Your task to perform on an android device: What is the news today? Image 0: 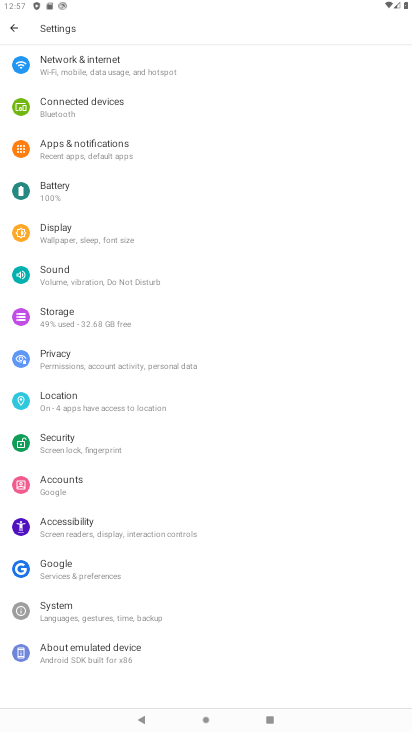
Step 0: press home button
Your task to perform on an android device: What is the news today? Image 1: 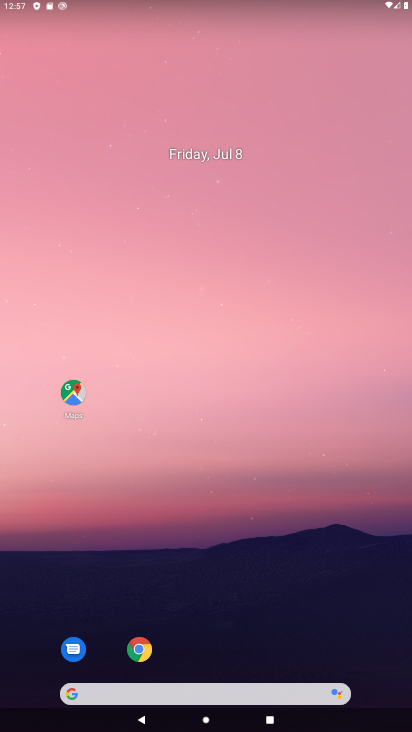
Step 1: click (105, 694)
Your task to perform on an android device: What is the news today? Image 2: 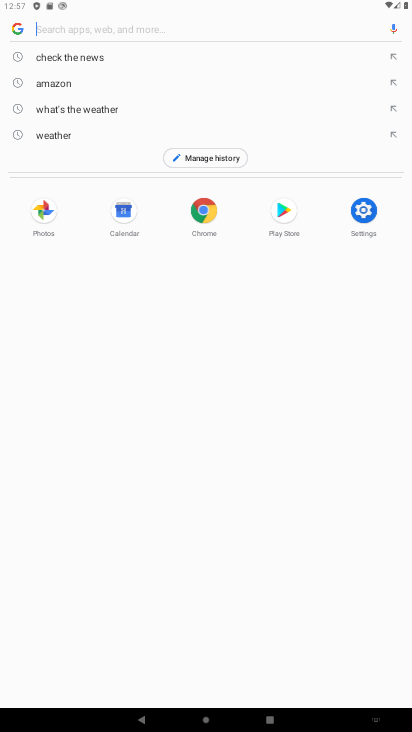
Step 2: type "What is the news today?"
Your task to perform on an android device: What is the news today? Image 3: 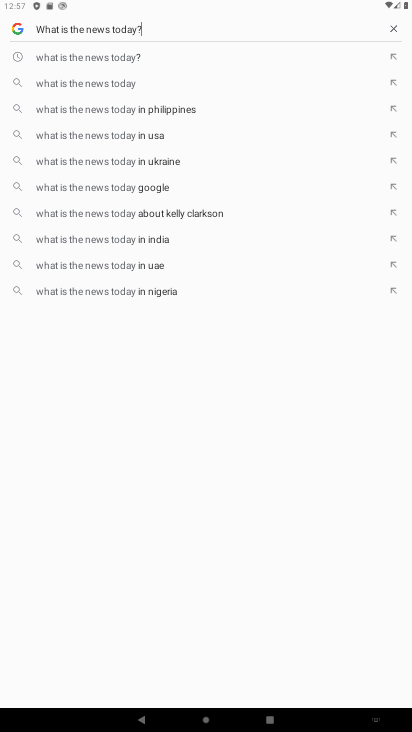
Step 3: type ""
Your task to perform on an android device: What is the news today? Image 4: 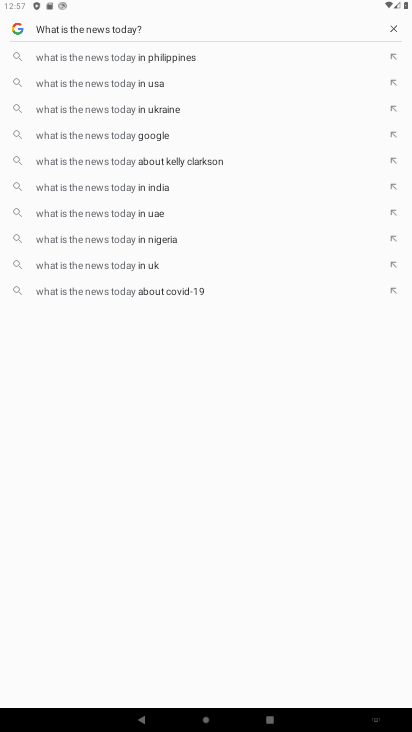
Step 4: type ""
Your task to perform on an android device: What is the news today? Image 5: 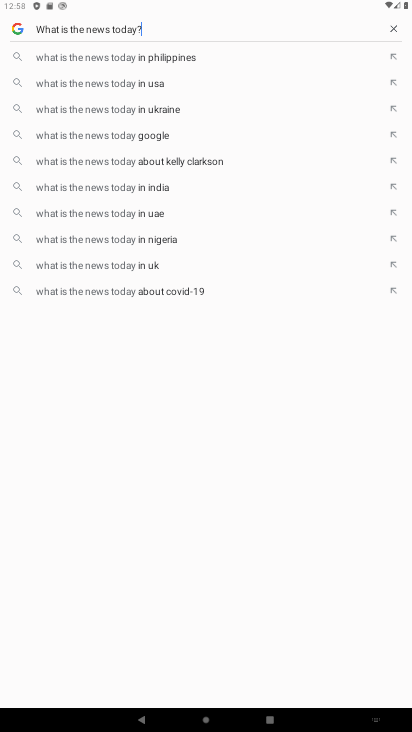
Step 5: type "  "
Your task to perform on an android device: What is the news today? Image 6: 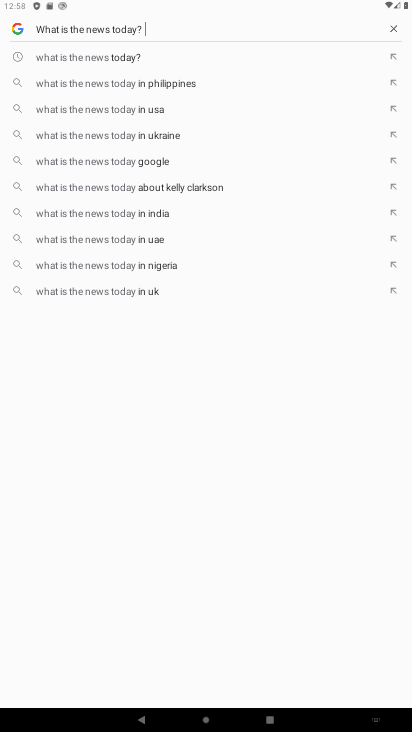
Step 6: click (101, 54)
Your task to perform on an android device: What is the news today? Image 7: 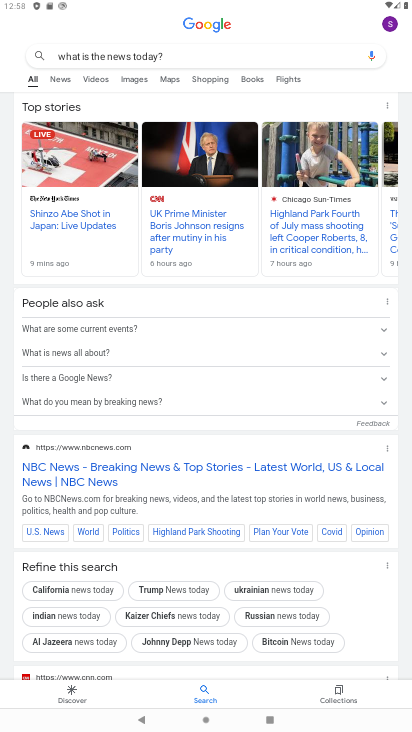
Step 7: task complete